Your task to perform on an android device: Search for pizza restaurants on Maps Image 0: 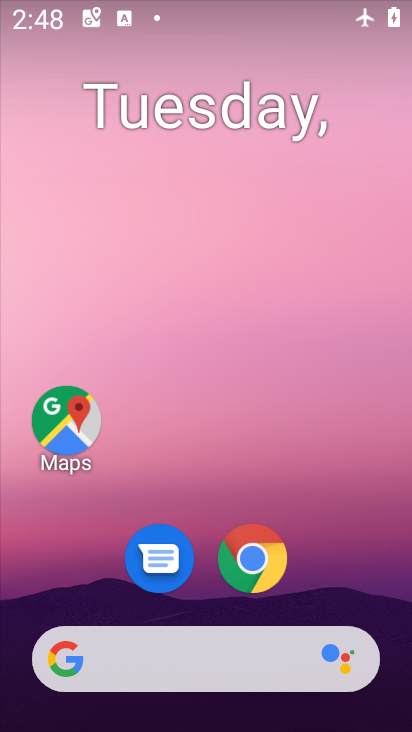
Step 0: click (63, 435)
Your task to perform on an android device: Search for pizza restaurants on Maps Image 1: 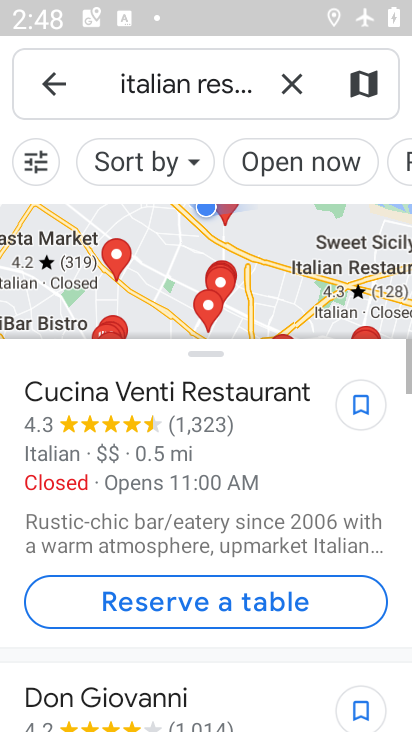
Step 1: click (299, 85)
Your task to perform on an android device: Search for pizza restaurants on Maps Image 2: 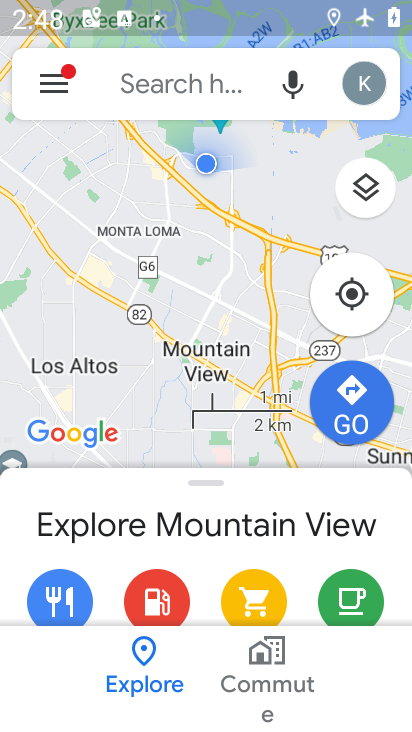
Step 2: click (248, 83)
Your task to perform on an android device: Search for pizza restaurants on Maps Image 3: 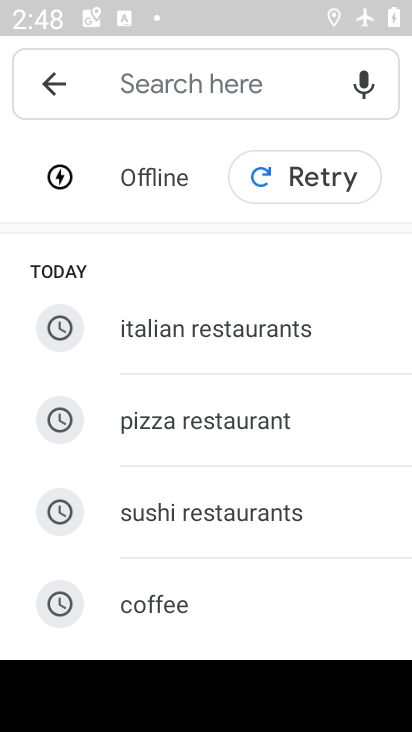
Step 3: click (206, 414)
Your task to perform on an android device: Search for pizza restaurants on Maps Image 4: 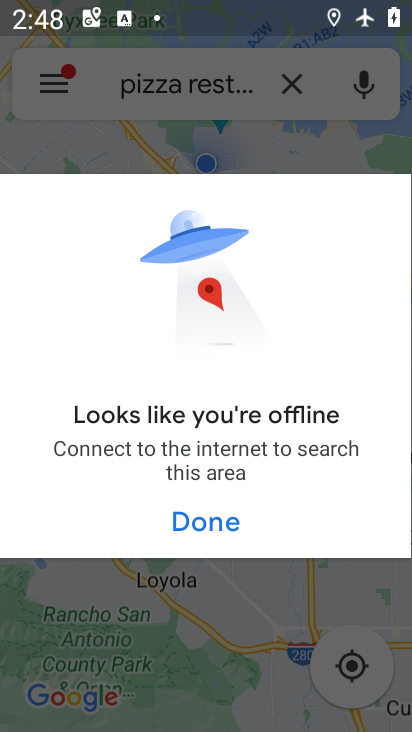
Step 4: task complete